Your task to perform on an android device: turn on wifi Image 0: 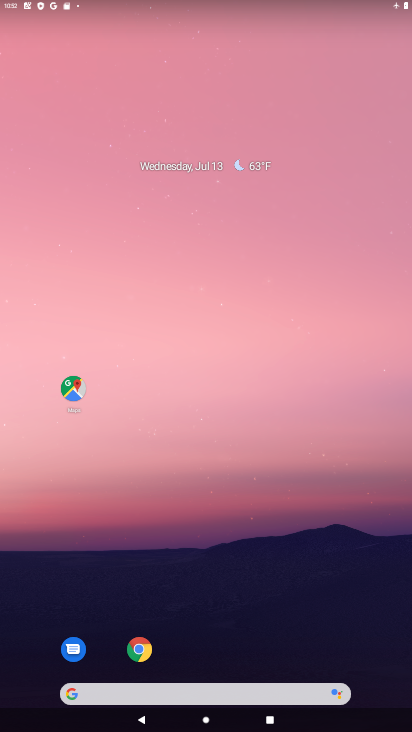
Step 0: drag from (247, 663) to (251, 286)
Your task to perform on an android device: turn on wifi Image 1: 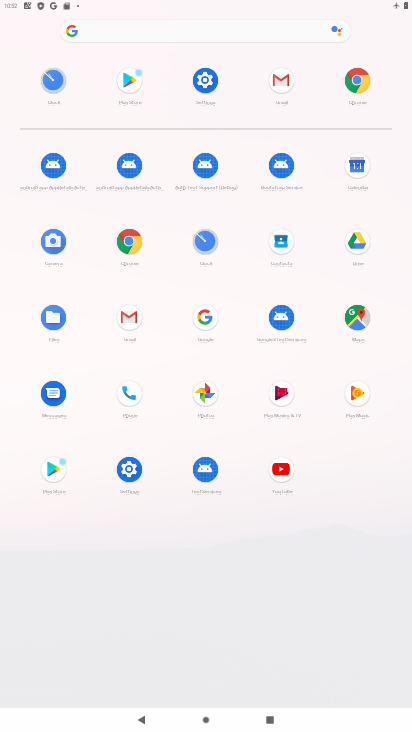
Step 1: click (201, 73)
Your task to perform on an android device: turn on wifi Image 2: 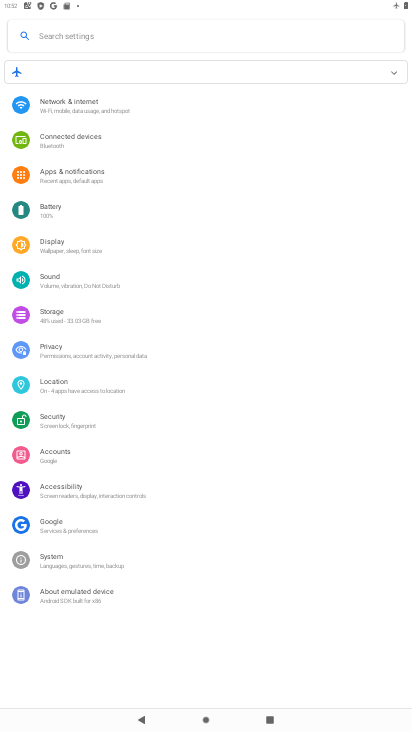
Step 2: click (111, 101)
Your task to perform on an android device: turn on wifi Image 3: 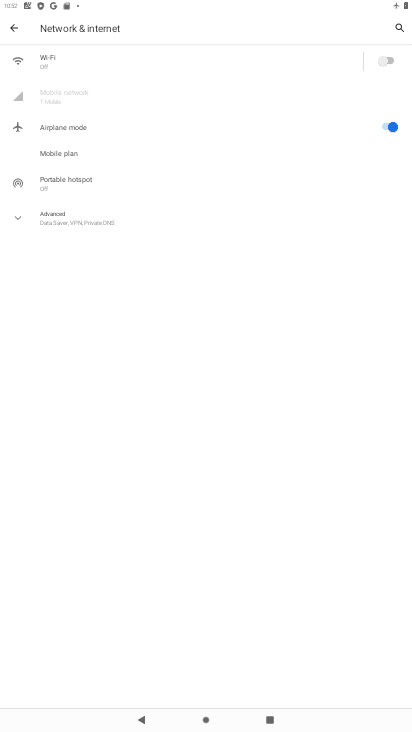
Step 3: click (382, 64)
Your task to perform on an android device: turn on wifi Image 4: 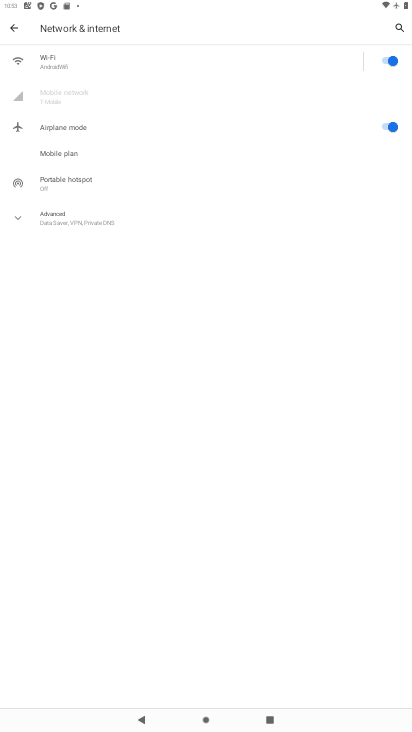
Step 4: task complete